Your task to perform on an android device: Show me productivity apps on the Play Store Image 0: 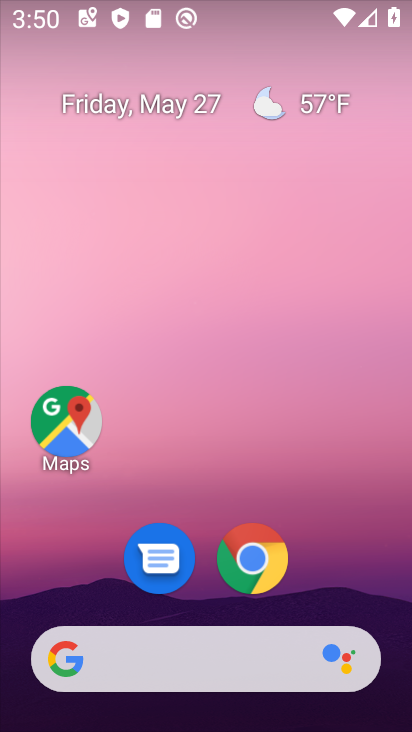
Step 0: drag from (368, 577) to (259, 20)
Your task to perform on an android device: Show me productivity apps on the Play Store Image 1: 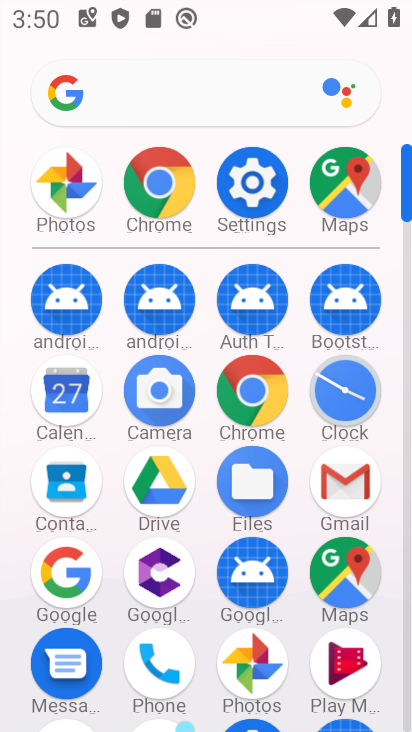
Step 1: click (412, 626)
Your task to perform on an android device: Show me productivity apps on the Play Store Image 2: 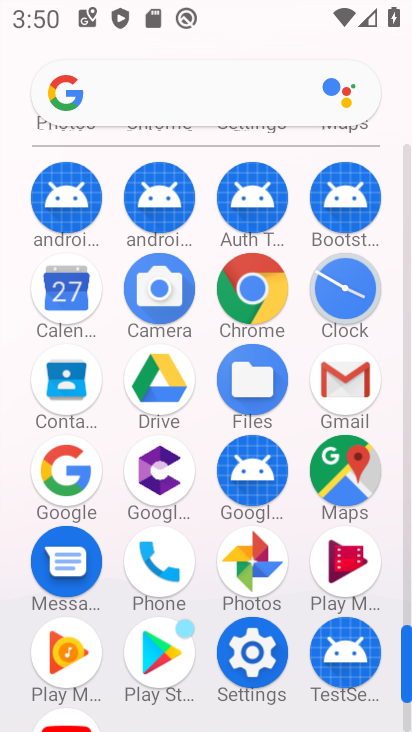
Step 2: click (169, 652)
Your task to perform on an android device: Show me productivity apps on the Play Store Image 3: 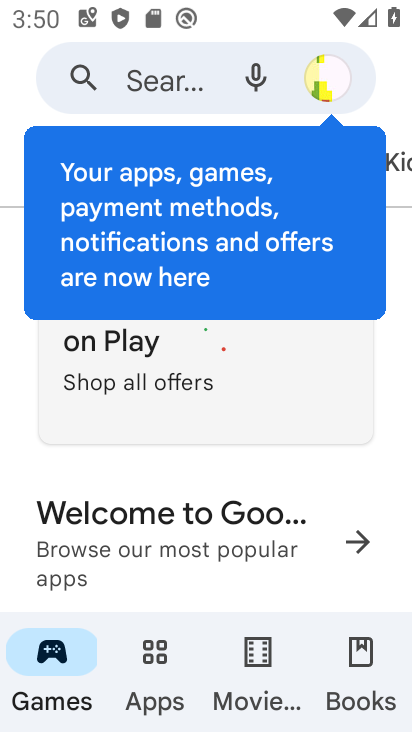
Step 3: click (169, 652)
Your task to perform on an android device: Show me productivity apps on the Play Store Image 4: 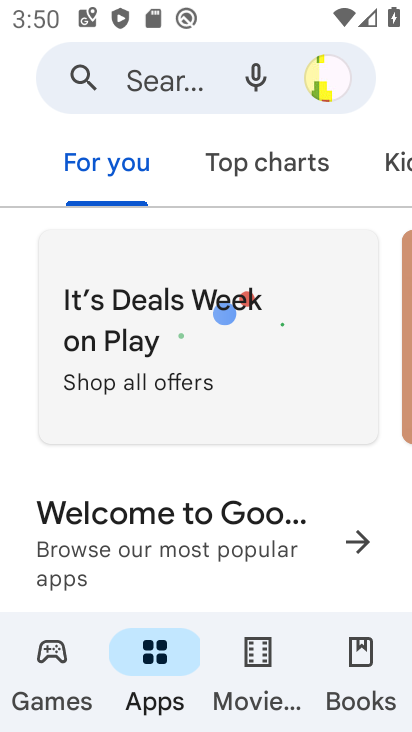
Step 4: click (233, 156)
Your task to perform on an android device: Show me productivity apps on the Play Store Image 5: 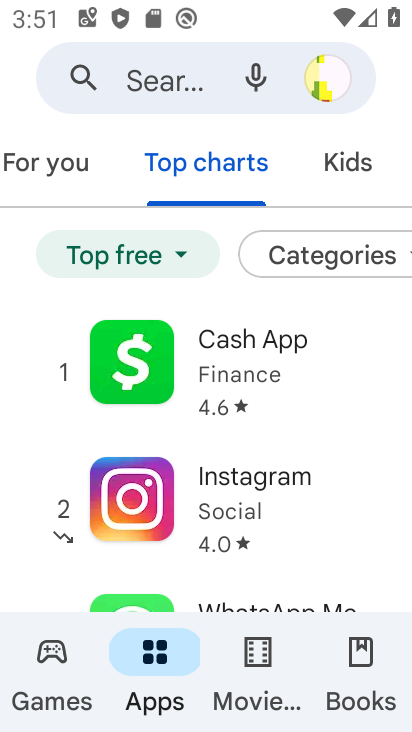
Step 5: click (320, 257)
Your task to perform on an android device: Show me productivity apps on the Play Store Image 6: 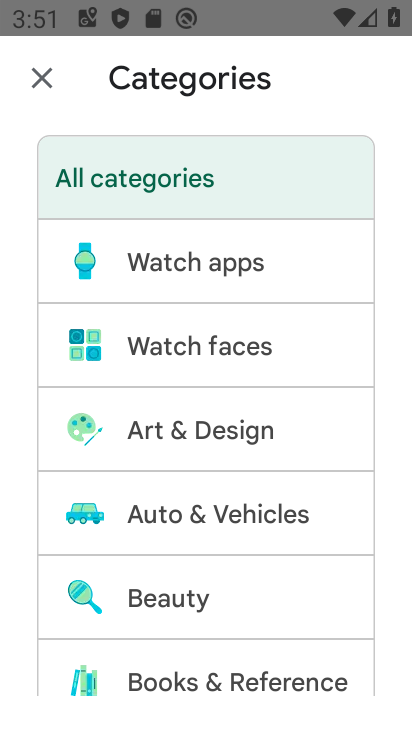
Step 6: drag from (272, 649) to (193, 36)
Your task to perform on an android device: Show me productivity apps on the Play Store Image 7: 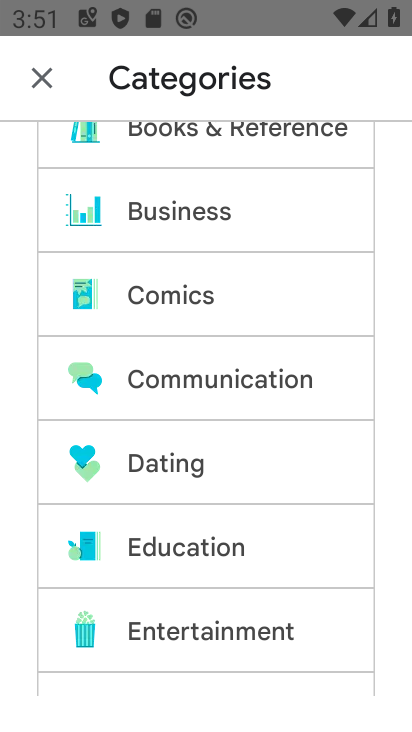
Step 7: drag from (259, 616) to (232, 132)
Your task to perform on an android device: Show me productivity apps on the Play Store Image 8: 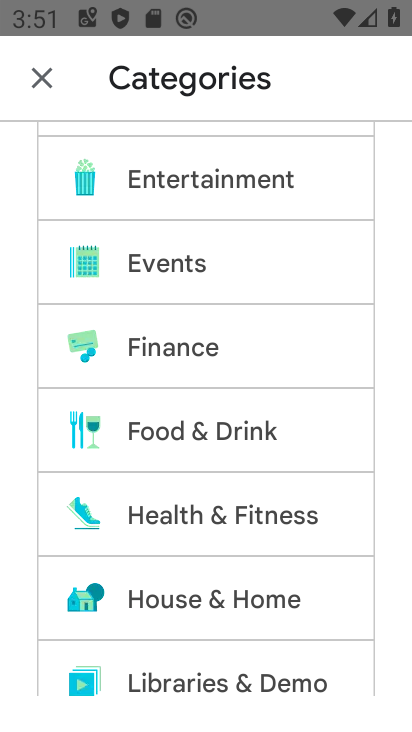
Step 8: drag from (256, 672) to (227, 101)
Your task to perform on an android device: Show me productivity apps on the Play Store Image 9: 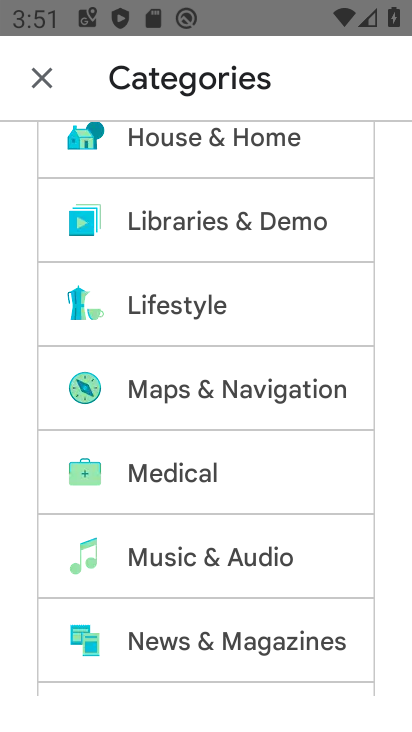
Step 9: drag from (240, 604) to (214, 189)
Your task to perform on an android device: Show me productivity apps on the Play Store Image 10: 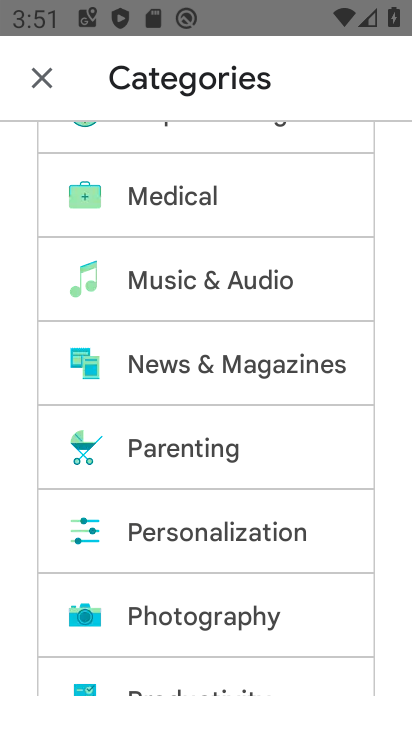
Step 10: click (221, 691)
Your task to perform on an android device: Show me productivity apps on the Play Store Image 11: 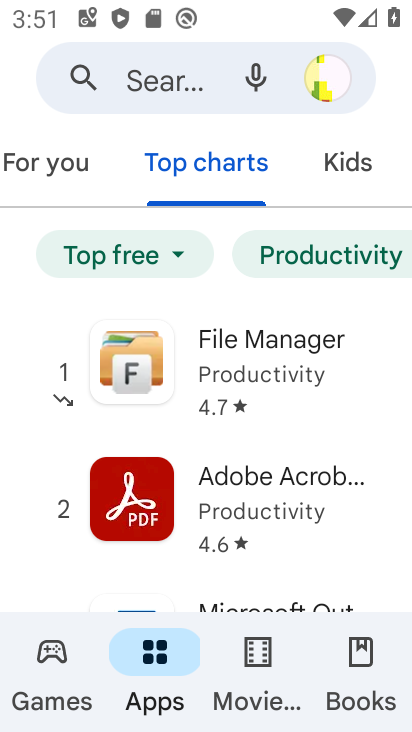
Step 11: task complete